Your task to perform on an android device: open app "Cash App" (install if not already installed) Image 0: 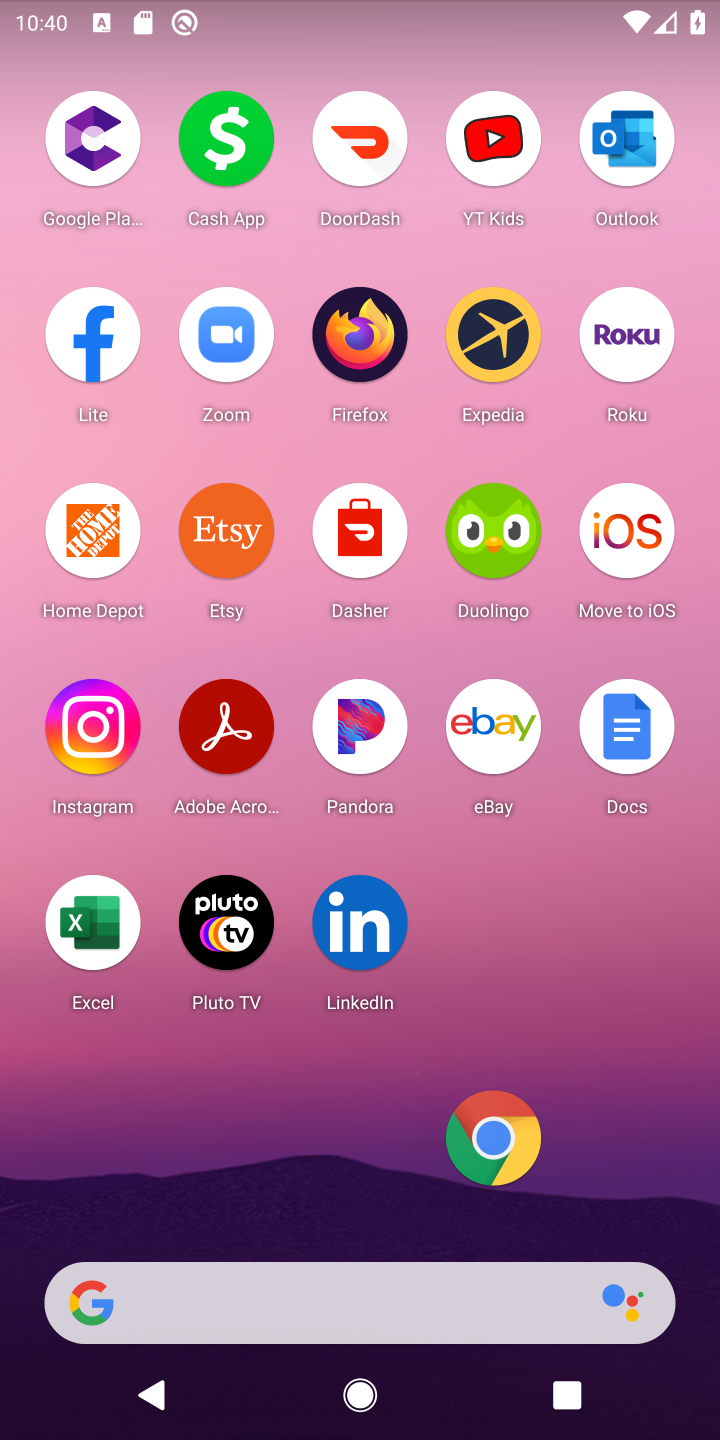
Step 0: drag from (290, 1195) to (409, 537)
Your task to perform on an android device: open app "Cash App" (install if not already installed) Image 1: 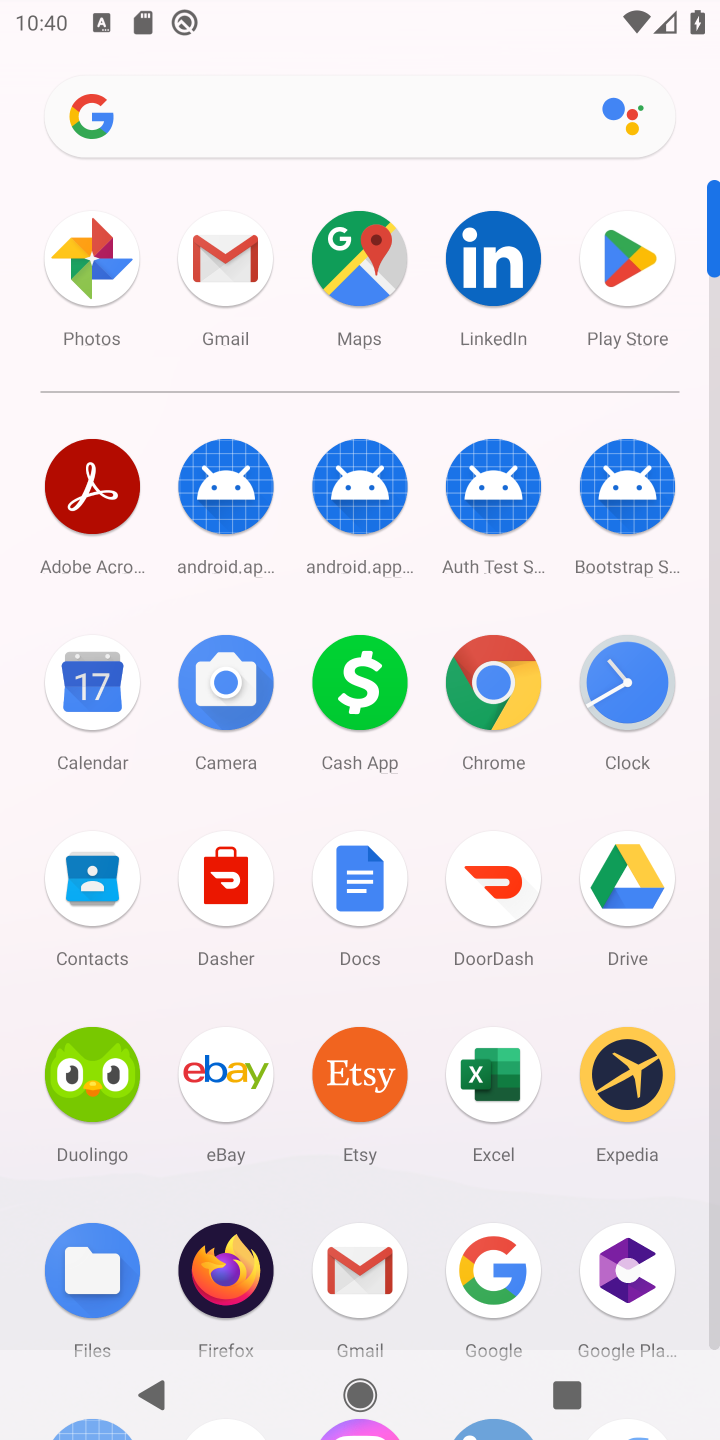
Step 1: click (620, 287)
Your task to perform on an android device: open app "Cash App" (install if not already installed) Image 2: 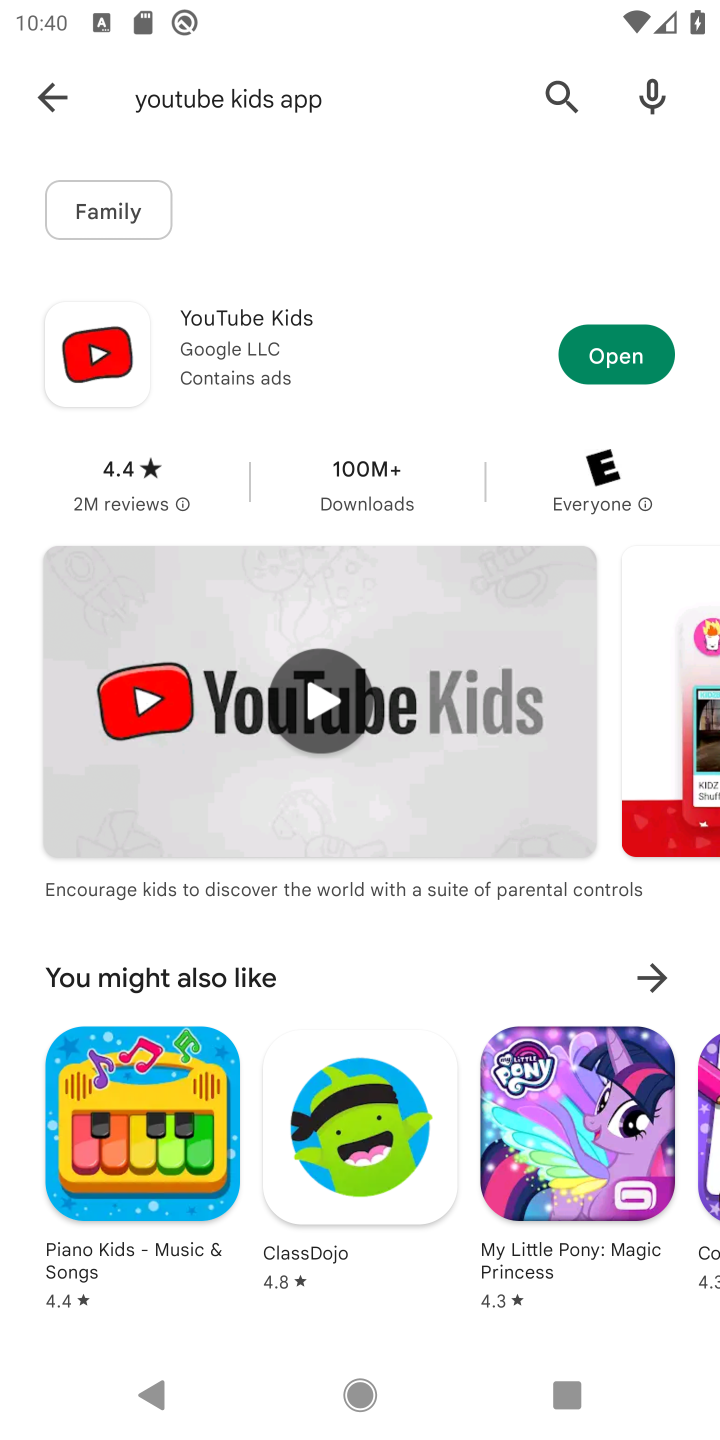
Step 2: click (62, 105)
Your task to perform on an android device: open app "Cash App" (install if not already installed) Image 3: 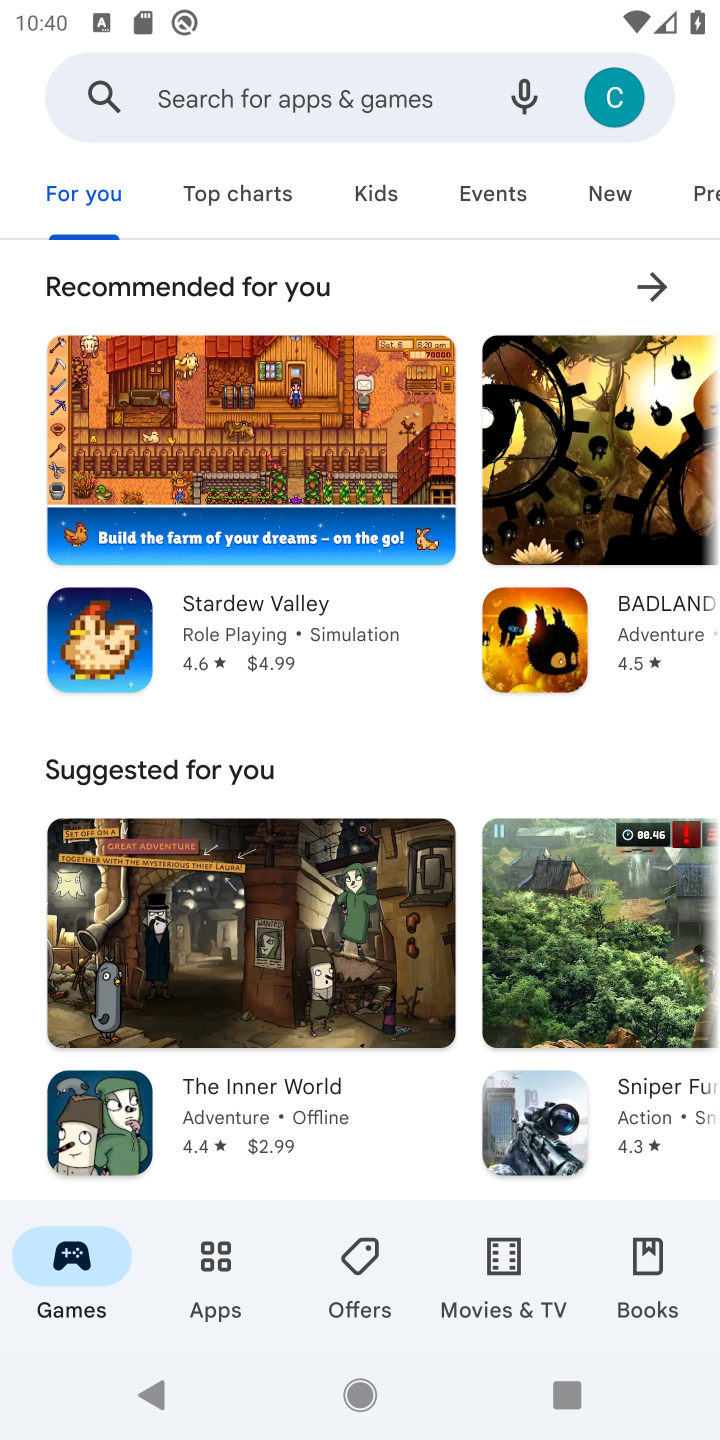
Step 3: click (262, 92)
Your task to perform on an android device: open app "Cash App" (install if not already installed) Image 4: 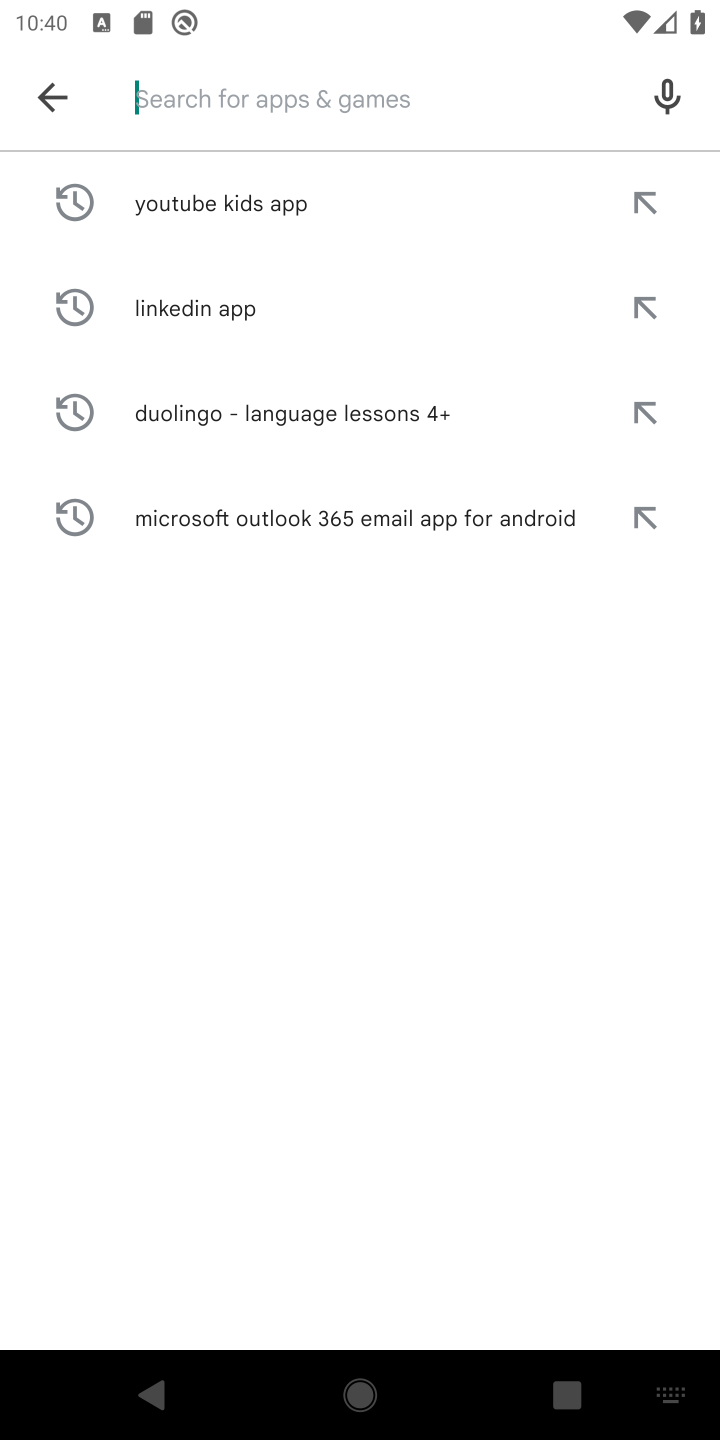
Step 4: type "cash aap "
Your task to perform on an android device: open app "Cash App" (install if not already installed) Image 5: 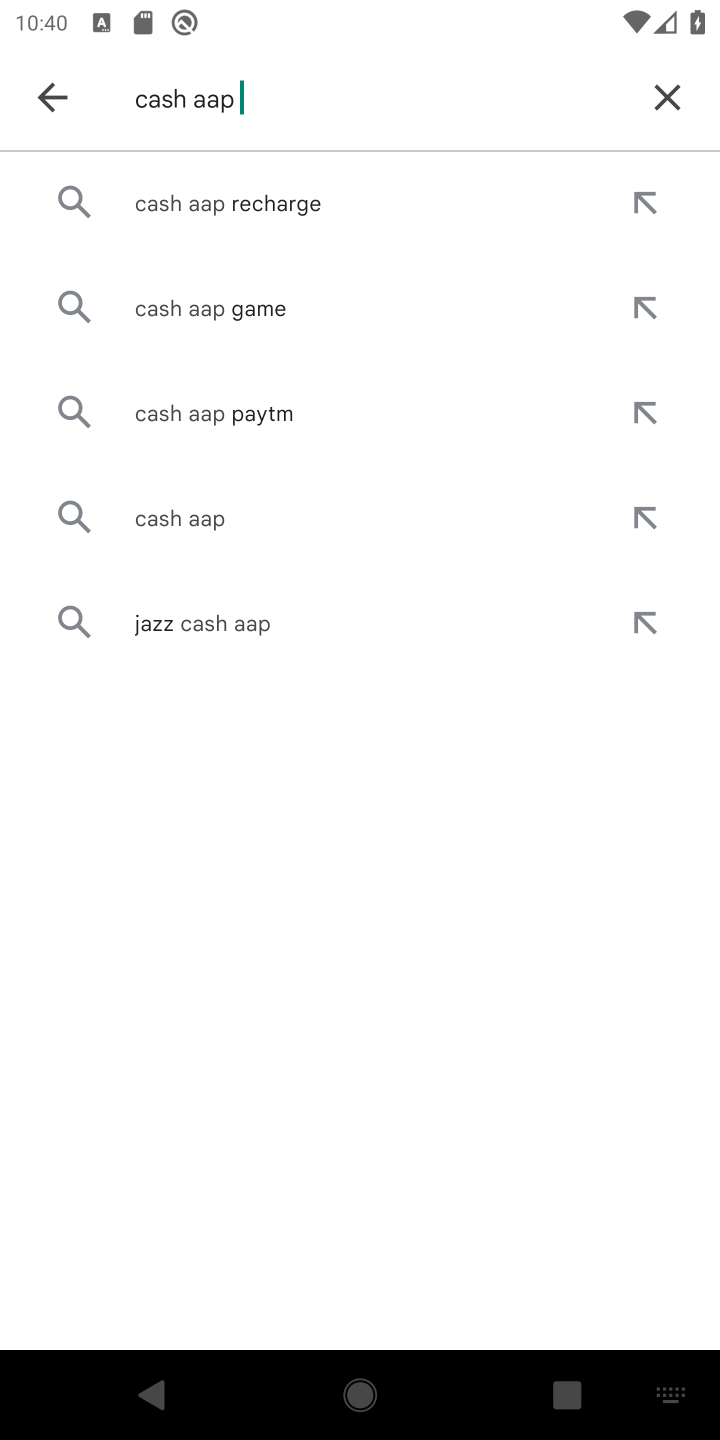
Step 5: click (169, 526)
Your task to perform on an android device: open app "Cash App" (install if not already installed) Image 6: 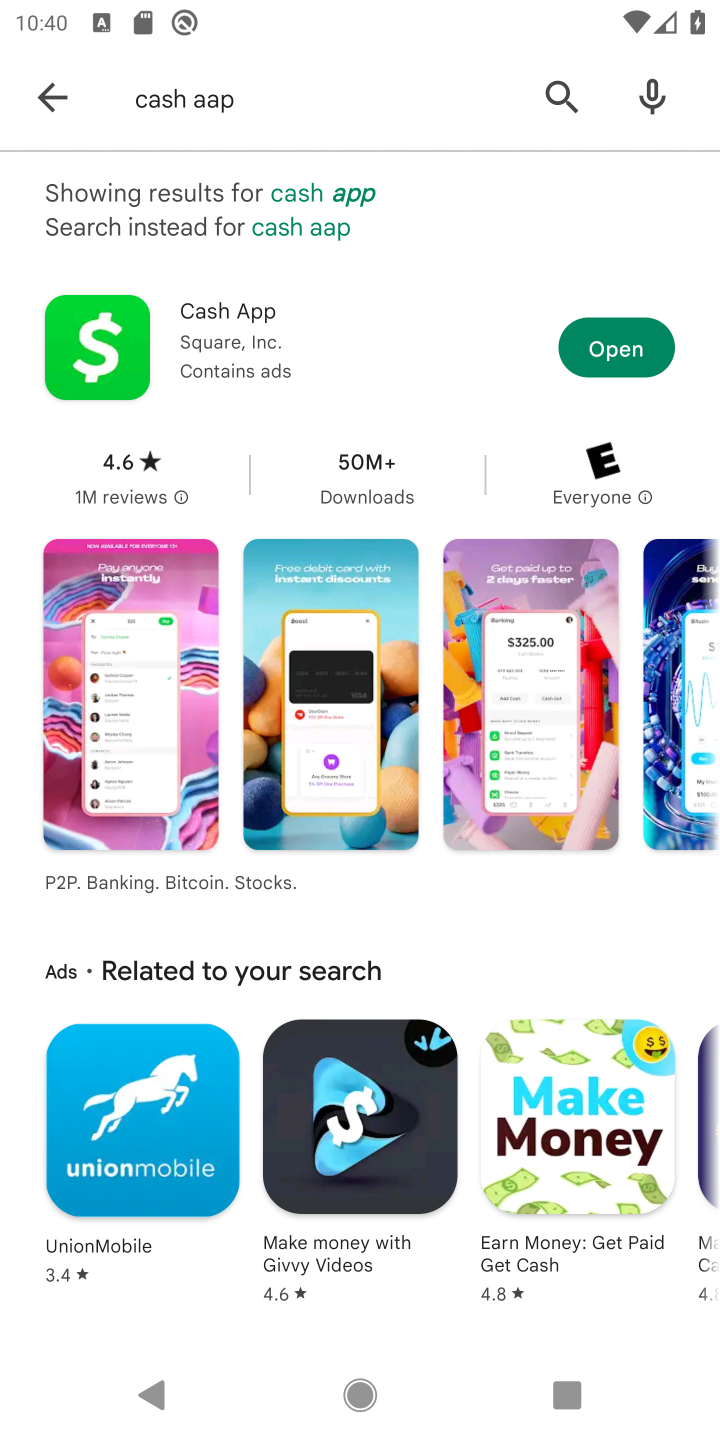
Step 6: click (647, 353)
Your task to perform on an android device: open app "Cash App" (install if not already installed) Image 7: 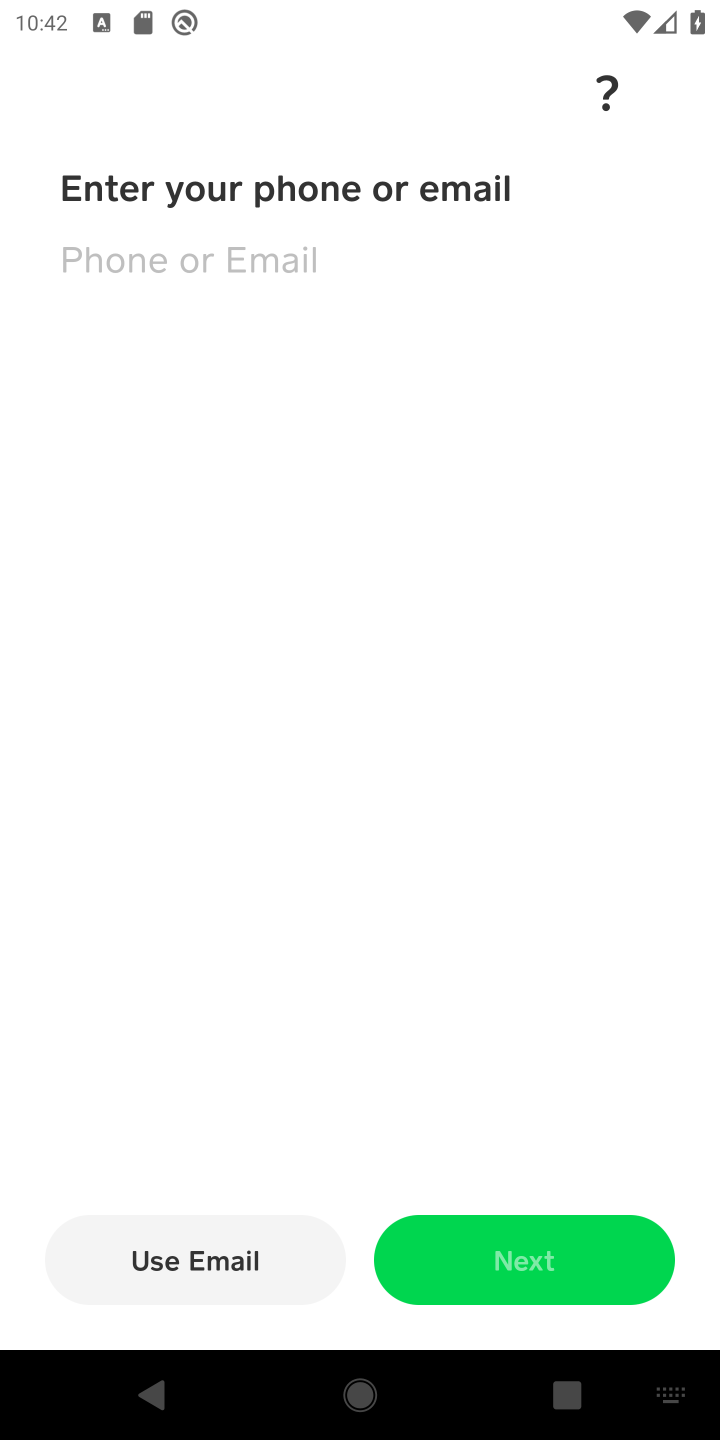
Step 7: task complete